Your task to perform on an android device: Find coffee shops on Maps Image 0: 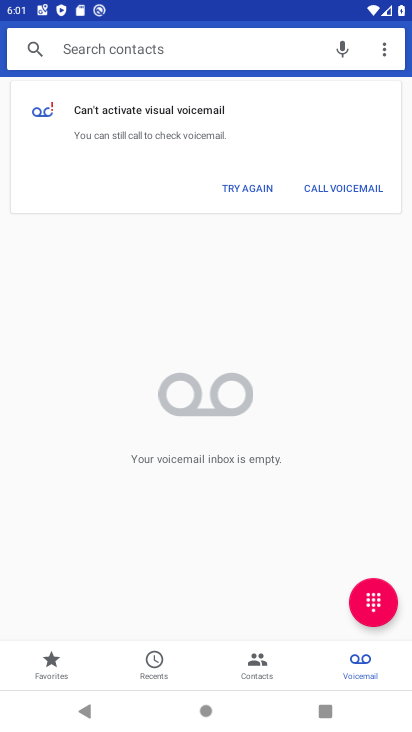
Step 0: press home button
Your task to perform on an android device: Find coffee shops on Maps Image 1: 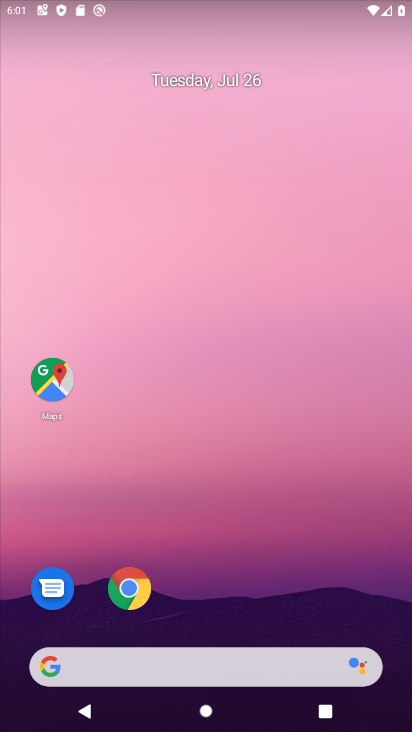
Step 1: click (55, 397)
Your task to perform on an android device: Find coffee shops on Maps Image 2: 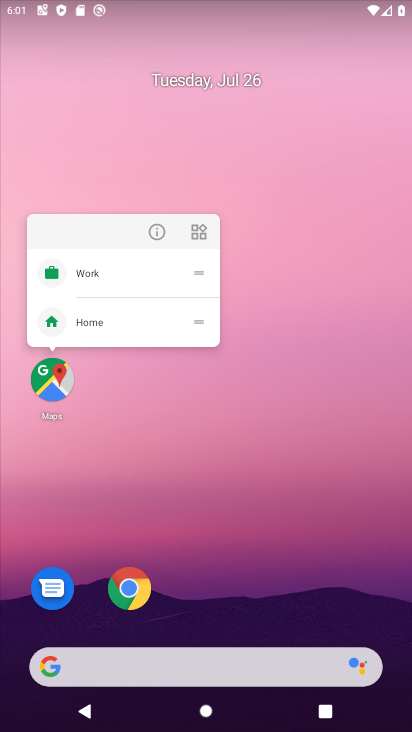
Step 2: click (55, 397)
Your task to perform on an android device: Find coffee shops on Maps Image 3: 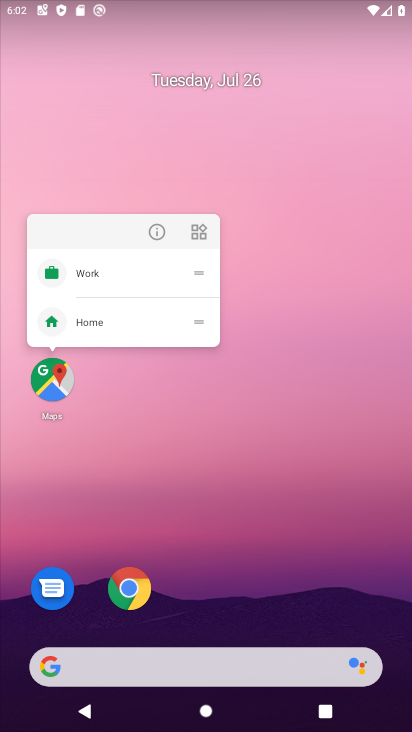
Step 3: click (54, 388)
Your task to perform on an android device: Find coffee shops on Maps Image 4: 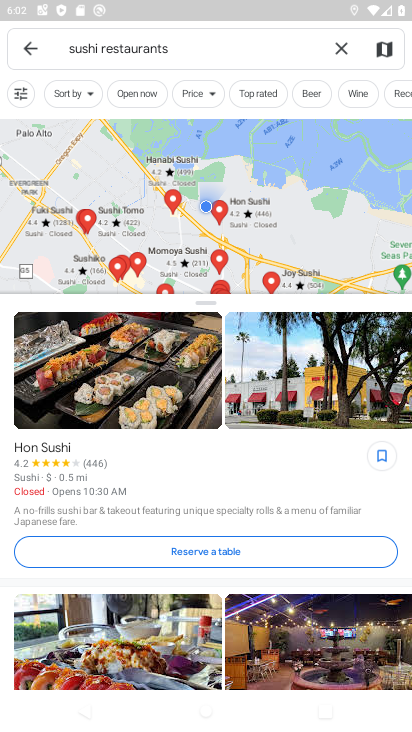
Step 4: click (341, 43)
Your task to perform on an android device: Find coffee shops on Maps Image 5: 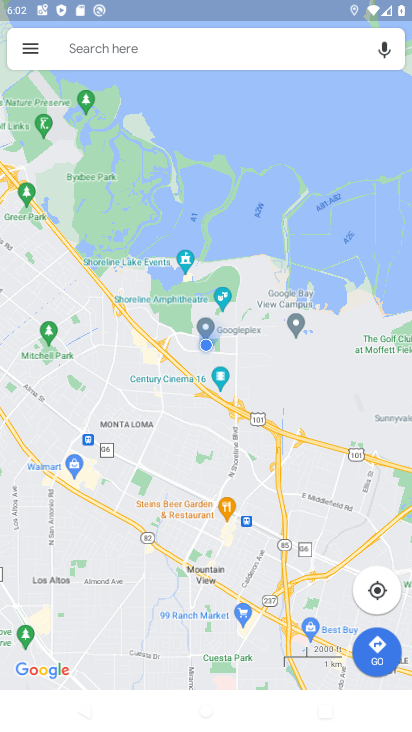
Step 5: click (284, 63)
Your task to perform on an android device: Find coffee shops on Maps Image 6: 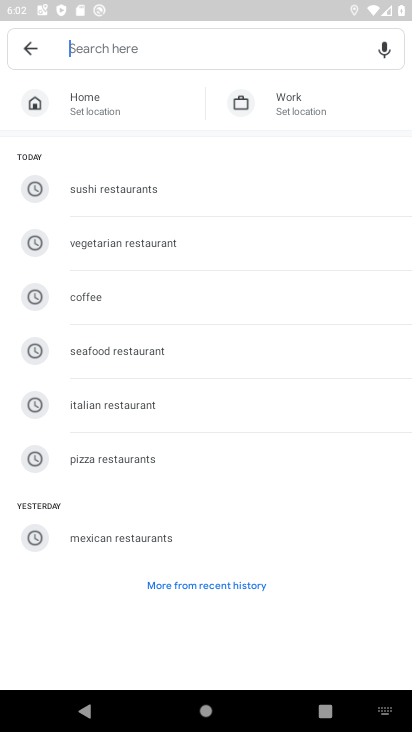
Step 6: type "coffee shops"
Your task to perform on an android device: Find coffee shops on Maps Image 7: 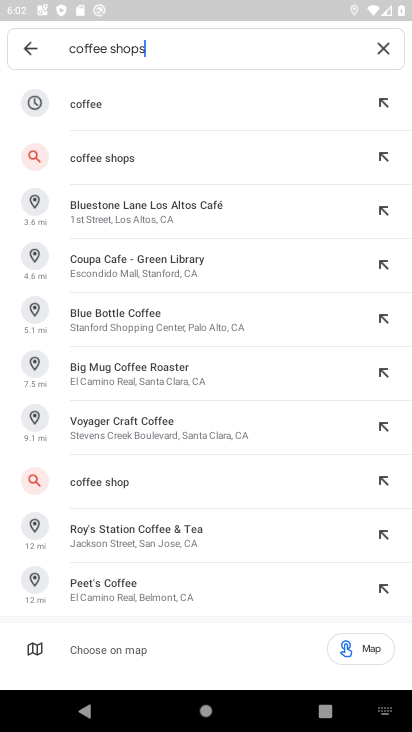
Step 7: click (108, 153)
Your task to perform on an android device: Find coffee shops on Maps Image 8: 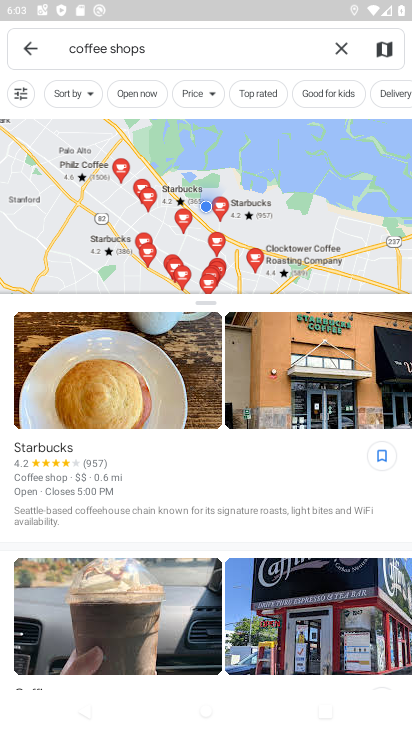
Step 8: task complete